Your task to perform on an android device: Go to privacy settings Image 0: 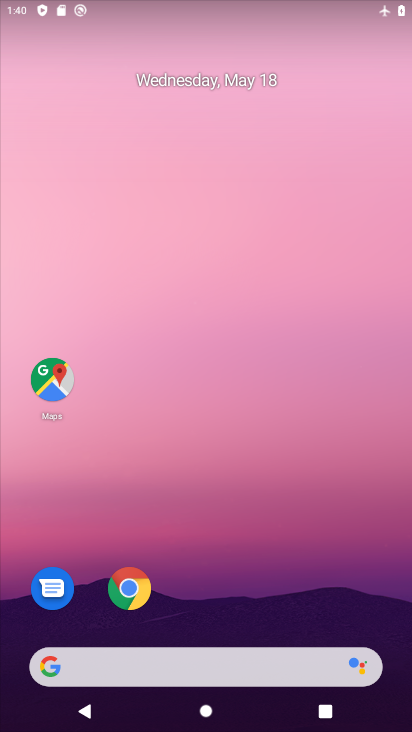
Step 0: drag from (68, 465) to (252, 128)
Your task to perform on an android device: Go to privacy settings Image 1: 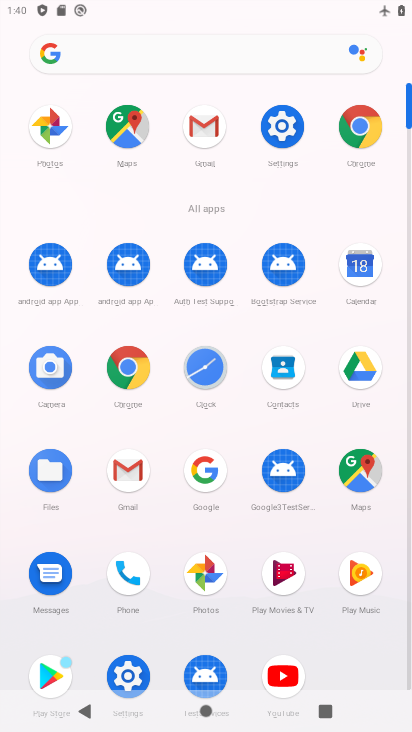
Step 1: click (273, 127)
Your task to perform on an android device: Go to privacy settings Image 2: 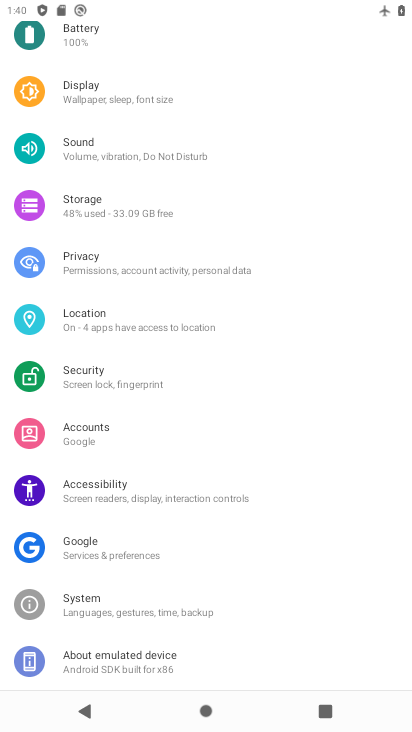
Step 2: click (108, 257)
Your task to perform on an android device: Go to privacy settings Image 3: 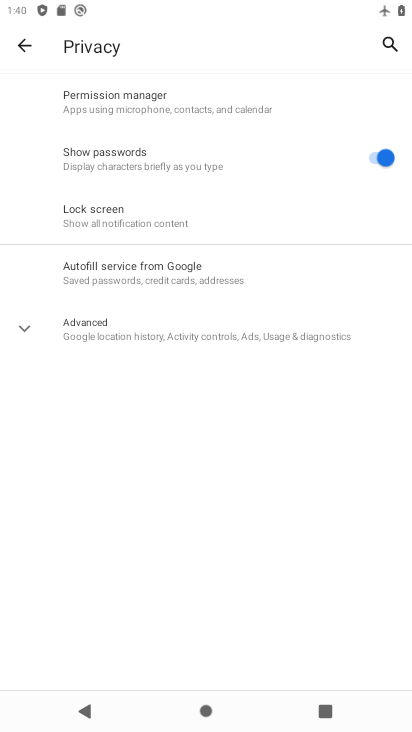
Step 3: task complete